Your task to perform on an android device: toggle notifications settings in the gmail app Image 0: 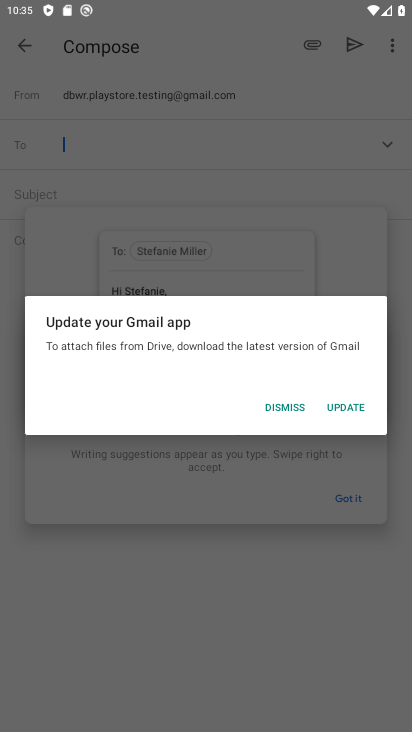
Step 0: press home button
Your task to perform on an android device: toggle notifications settings in the gmail app Image 1: 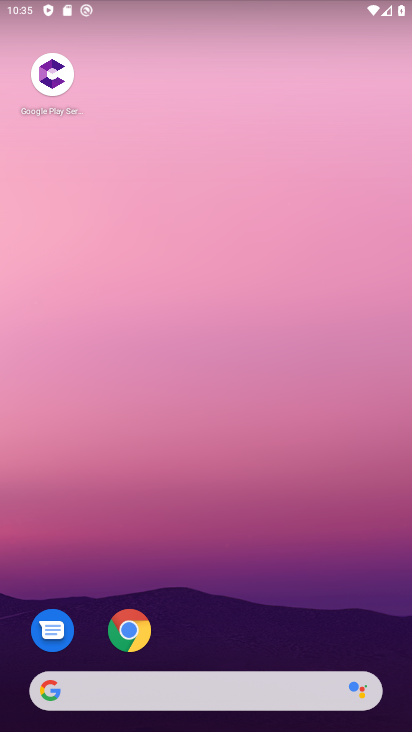
Step 1: drag from (241, 616) to (213, 94)
Your task to perform on an android device: toggle notifications settings in the gmail app Image 2: 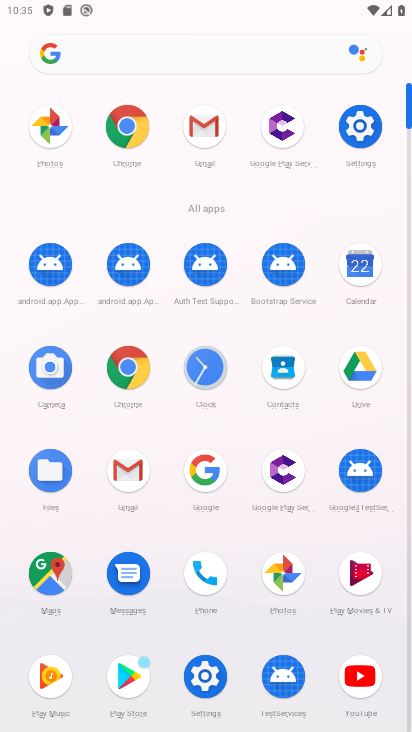
Step 2: click (204, 127)
Your task to perform on an android device: toggle notifications settings in the gmail app Image 3: 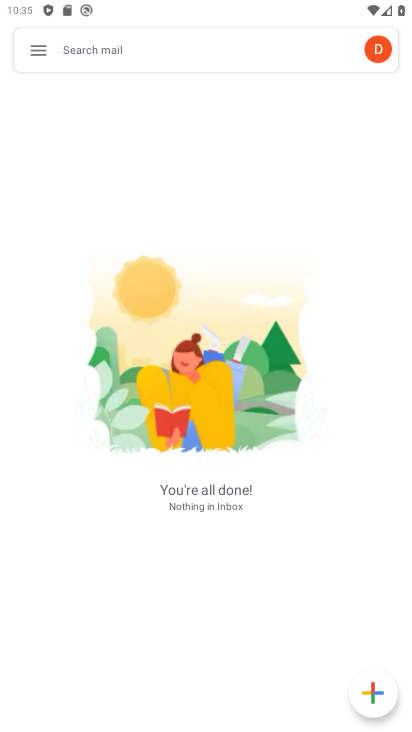
Step 3: click (40, 50)
Your task to perform on an android device: toggle notifications settings in the gmail app Image 4: 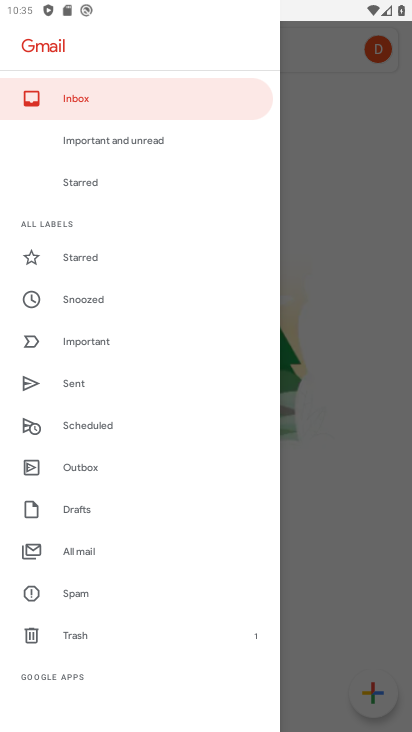
Step 4: drag from (95, 570) to (111, 498)
Your task to perform on an android device: toggle notifications settings in the gmail app Image 5: 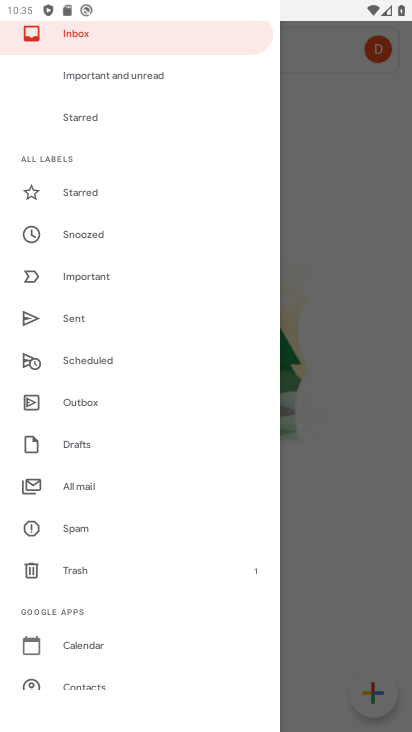
Step 5: drag from (70, 581) to (120, 498)
Your task to perform on an android device: toggle notifications settings in the gmail app Image 6: 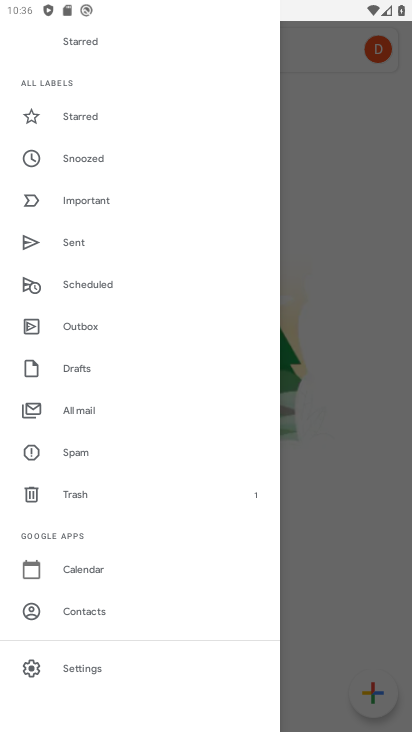
Step 6: drag from (115, 542) to (137, 485)
Your task to perform on an android device: toggle notifications settings in the gmail app Image 7: 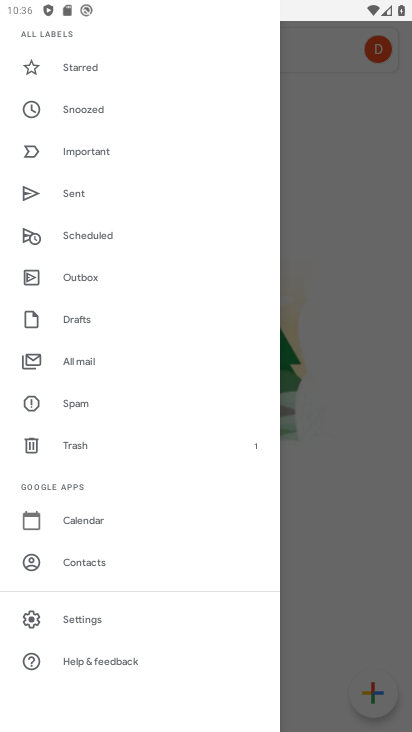
Step 7: click (87, 617)
Your task to perform on an android device: toggle notifications settings in the gmail app Image 8: 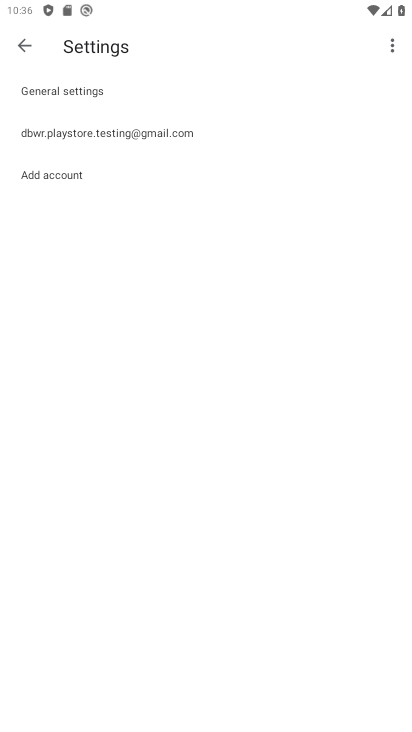
Step 8: click (60, 136)
Your task to perform on an android device: toggle notifications settings in the gmail app Image 9: 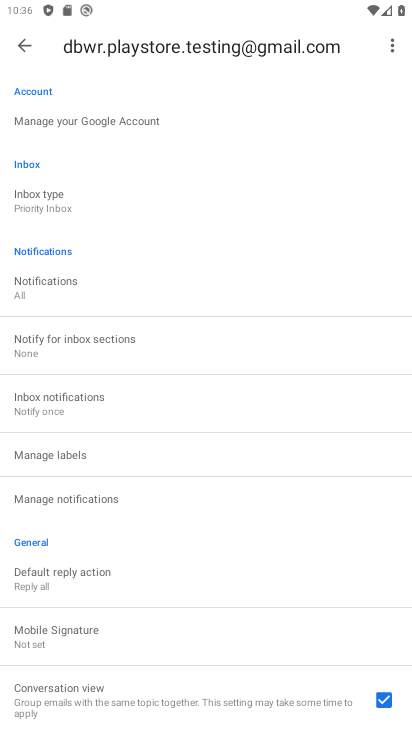
Step 9: drag from (66, 518) to (117, 442)
Your task to perform on an android device: toggle notifications settings in the gmail app Image 10: 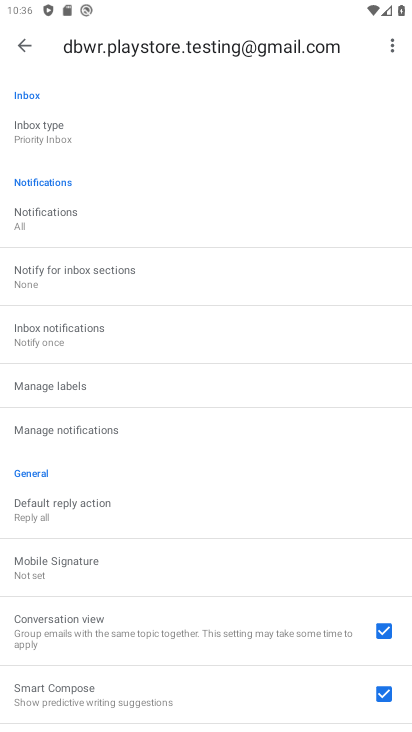
Step 10: click (90, 432)
Your task to perform on an android device: toggle notifications settings in the gmail app Image 11: 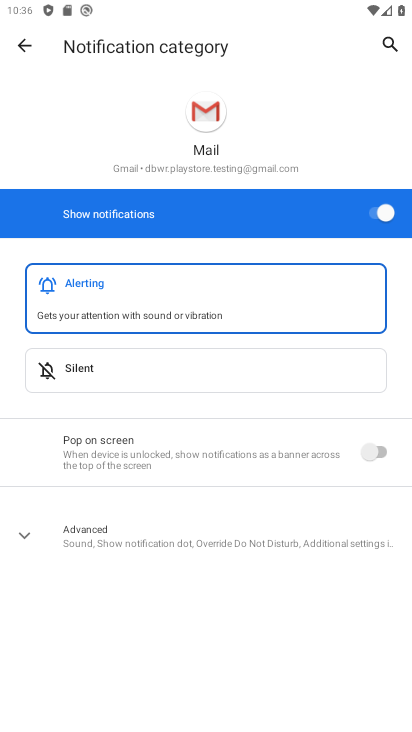
Step 11: click (377, 210)
Your task to perform on an android device: toggle notifications settings in the gmail app Image 12: 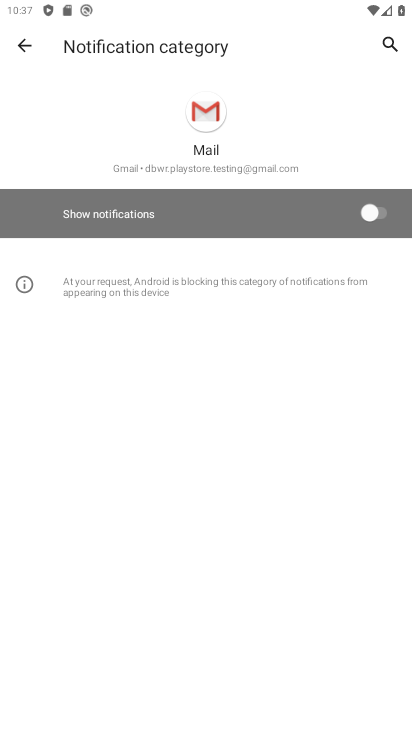
Step 12: task complete